Your task to perform on an android device: install app "Messenger Lite" Image 0: 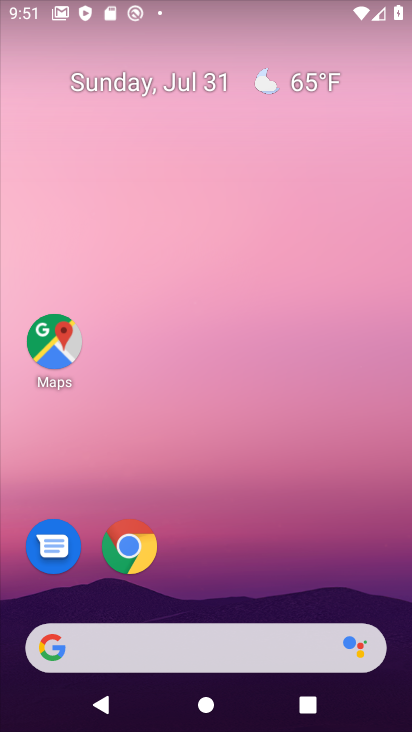
Step 0: drag from (203, 597) to (239, 0)
Your task to perform on an android device: install app "Messenger Lite" Image 1: 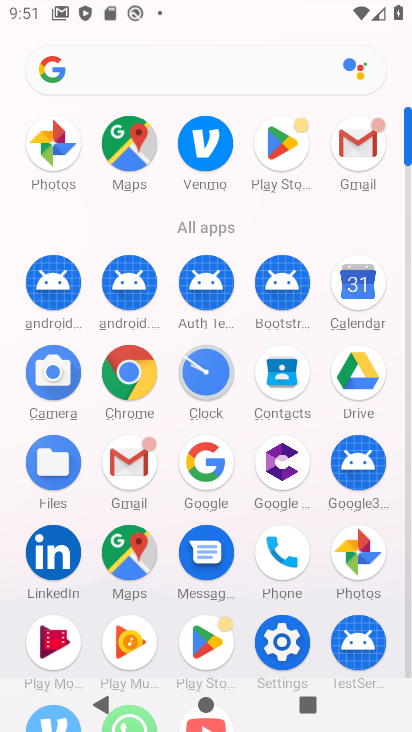
Step 1: click (274, 136)
Your task to perform on an android device: install app "Messenger Lite" Image 2: 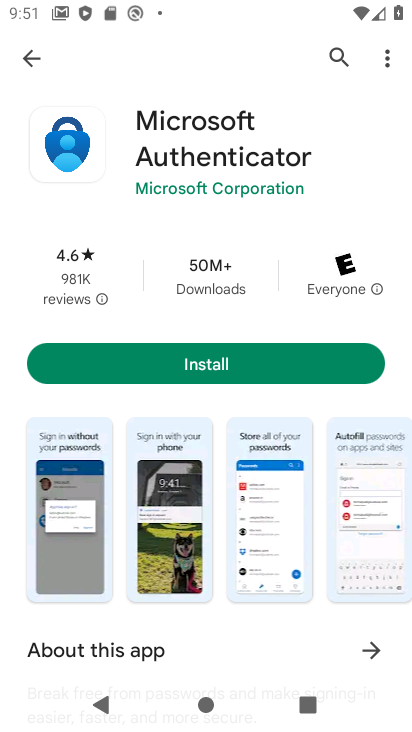
Step 2: click (337, 52)
Your task to perform on an android device: install app "Messenger Lite" Image 3: 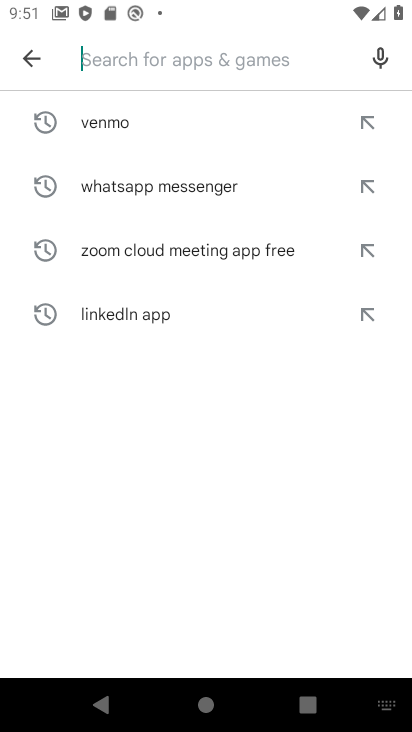
Step 3: click (150, 63)
Your task to perform on an android device: install app "Messenger Lite" Image 4: 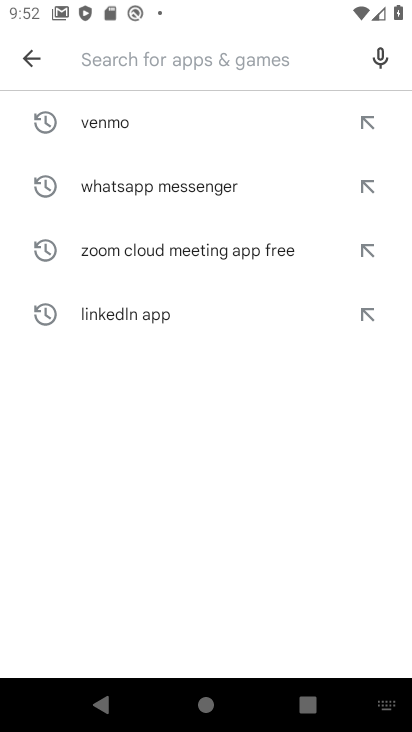
Step 4: type "messenger lite"
Your task to perform on an android device: install app "Messenger Lite" Image 5: 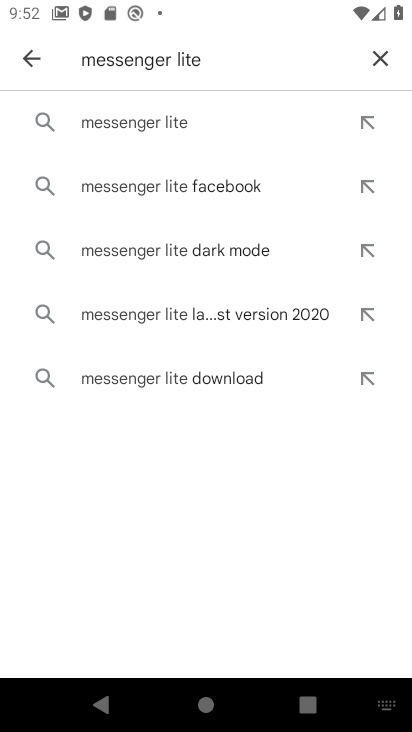
Step 5: click (148, 118)
Your task to perform on an android device: install app "Messenger Lite" Image 6: 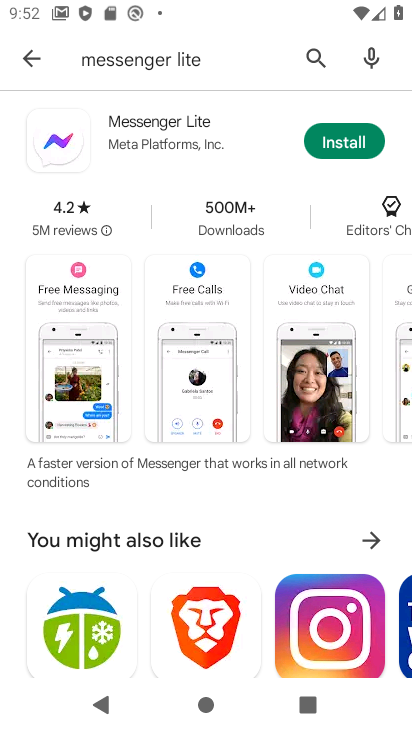
Step 6: click (347, 140)
Your task to perform on an android device: install app "Messenger Lite" Image 7: 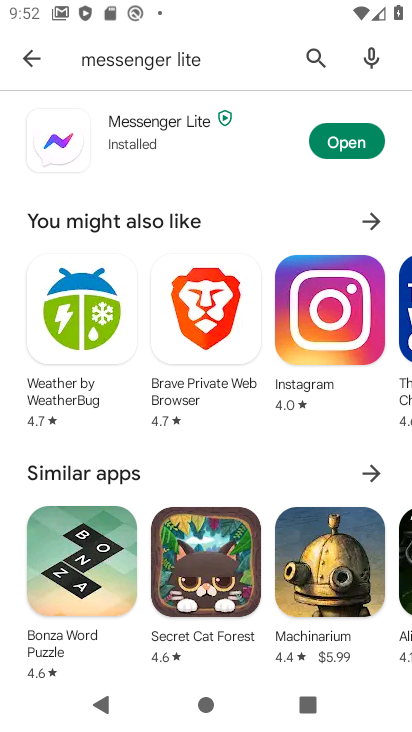
Step 7: click (342, 143)
Your task to perform on an android device: install app "Messenger Lite" Image 8: 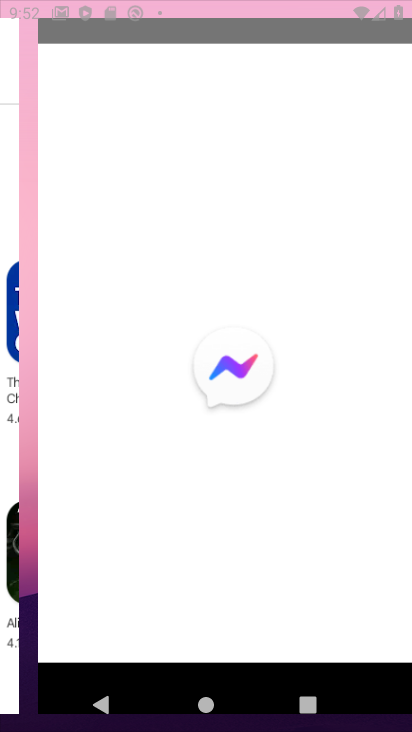
Step 8: task complete